Your task to perform on an android device: Clear the shopping cart on amazon.com. Add corsair k70 to the cart on amazon.com Image 0: 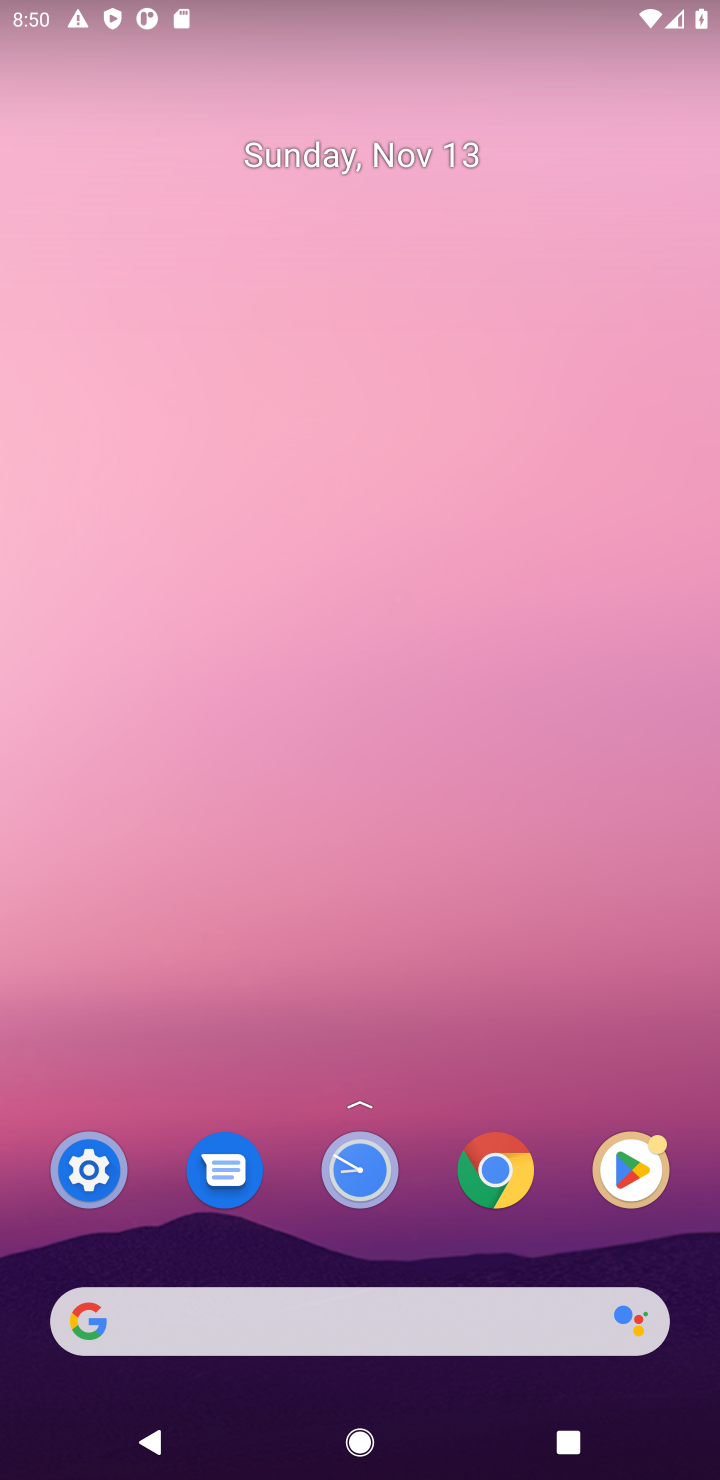
Step 0: click (436, 1325)
Your task to perform on an android device: Clear the shopping cart on amazon.com. Add corsair k70 to the cart on amazon.com Image 1: 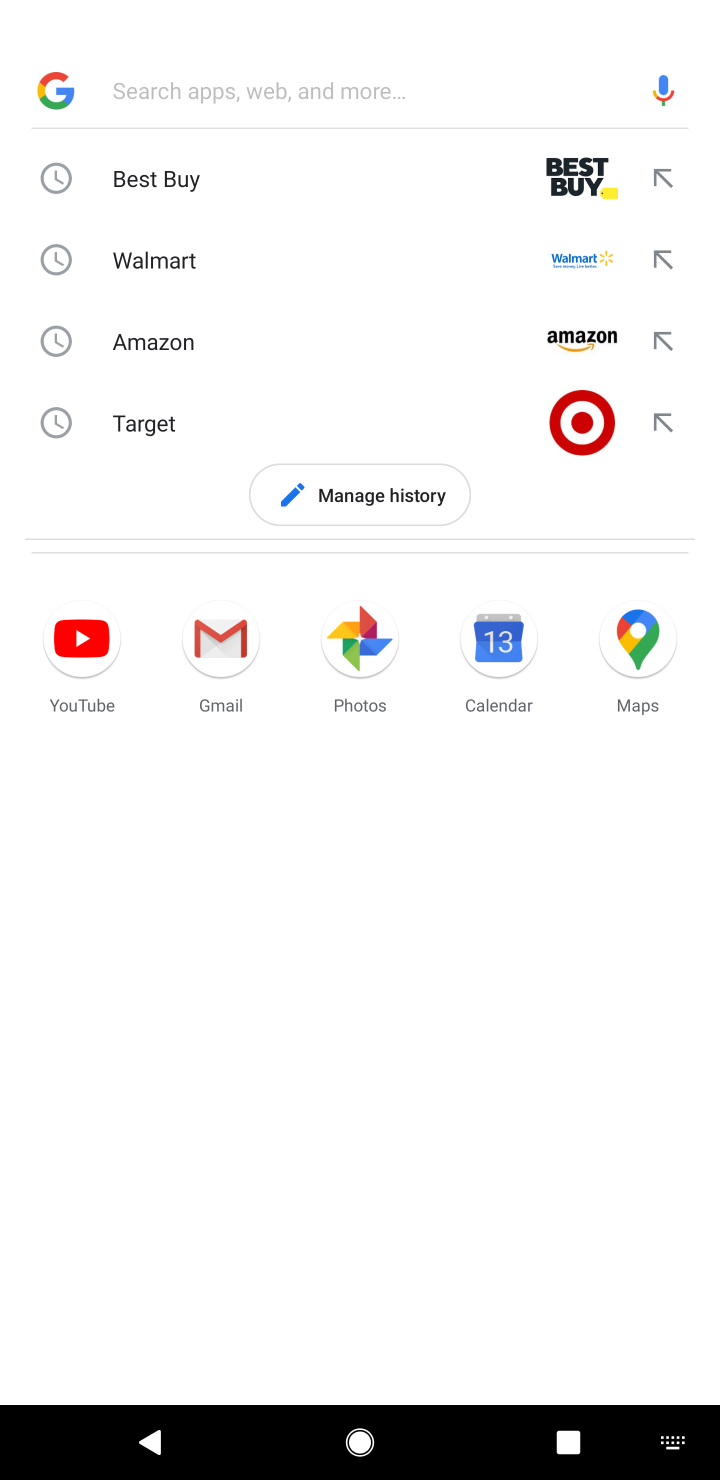
Step 1: click (94, 343)
Your task to perform on an android device: Clear the shopping cart on amazon.com. Add corsair k70 to the cart on amazon.com Image 2: 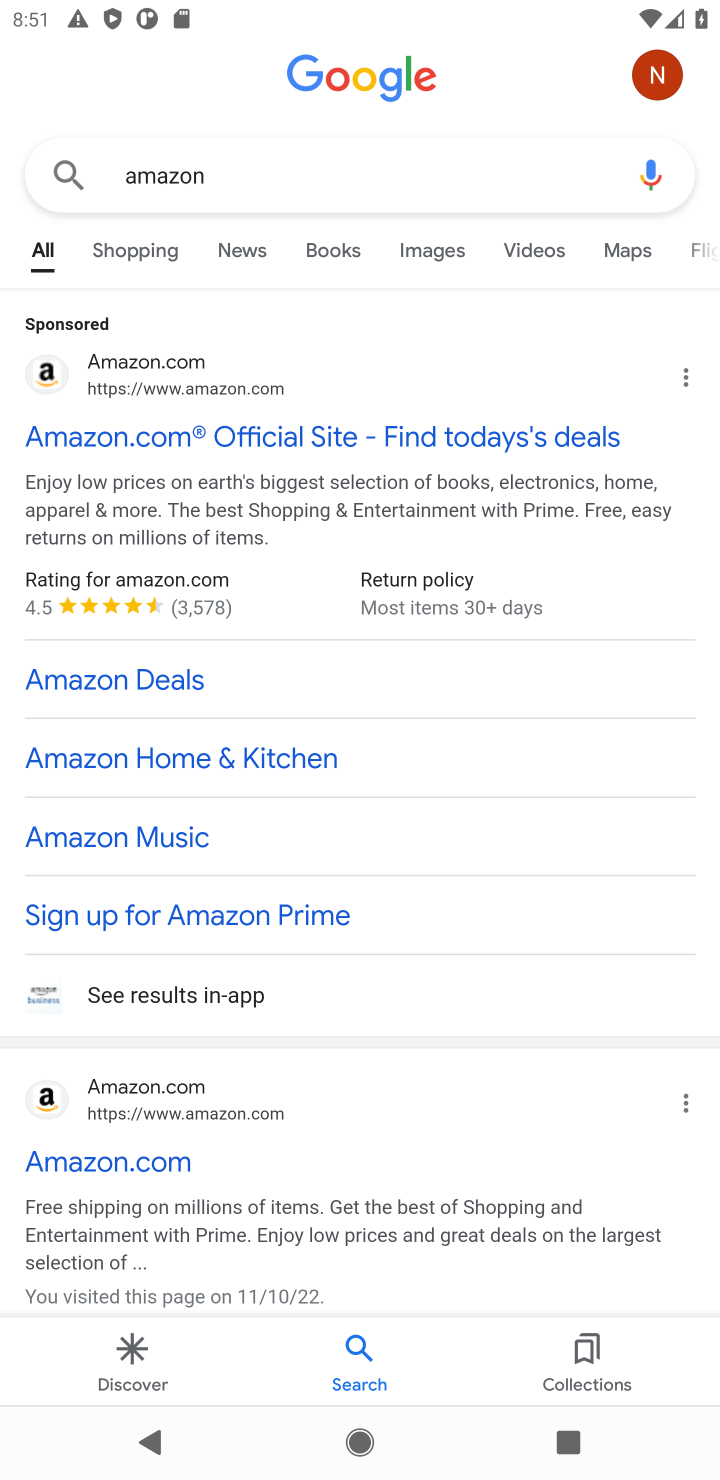
Step 2: click (337, 462)
Your task to perform on an android device: Clear the shopping cart on amazon.com. Add corsair k70 to the cart on amazon.com Image 3: 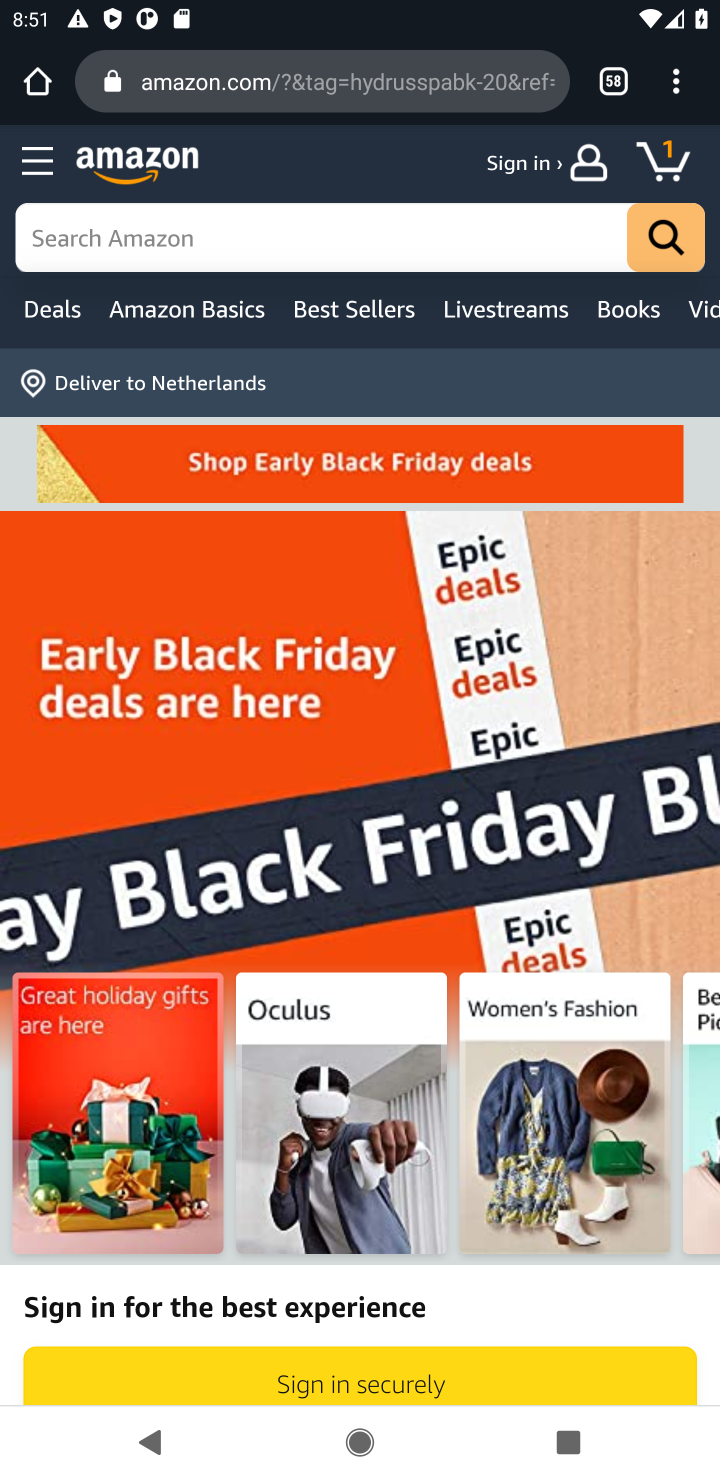
Step 3: task complete